Your task to perform on an android device: Show me productivity apps on the Play Store Image 0: 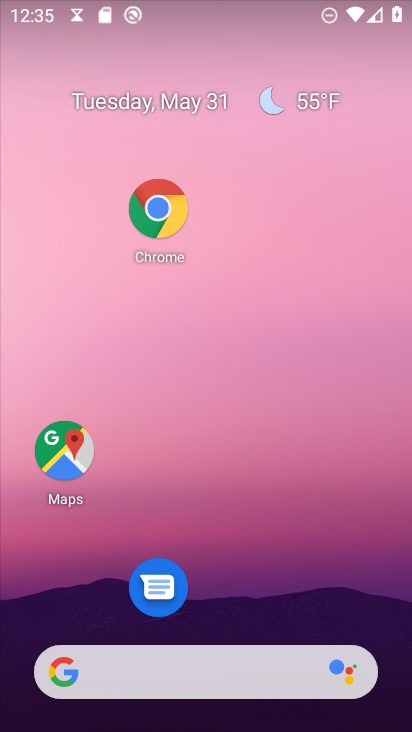
Step 0: drag from (226, 592) to (258, 215)
Your task to perform on an android device: Show me productivity apps on the Play Store Image 1: 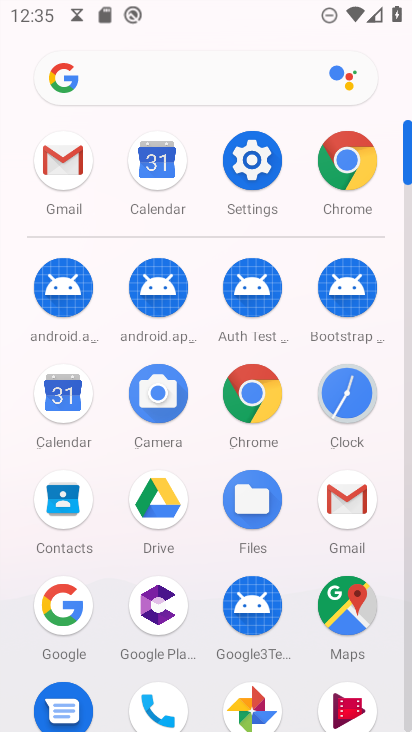
Step 1: drag from (98, 617) to (98, 346)
Your task to perform on an android device: Show me productivity apps on the Play Store Image 2: 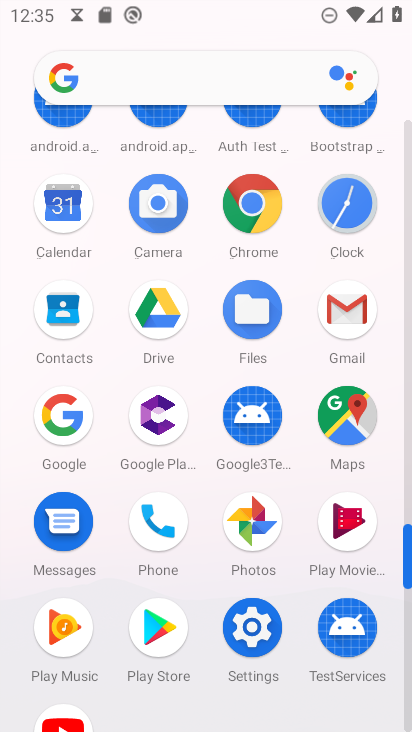
Step 2: click (155, 633)
Your task to perform on an android device: Show me productivity apps on the Play Store Image 3: 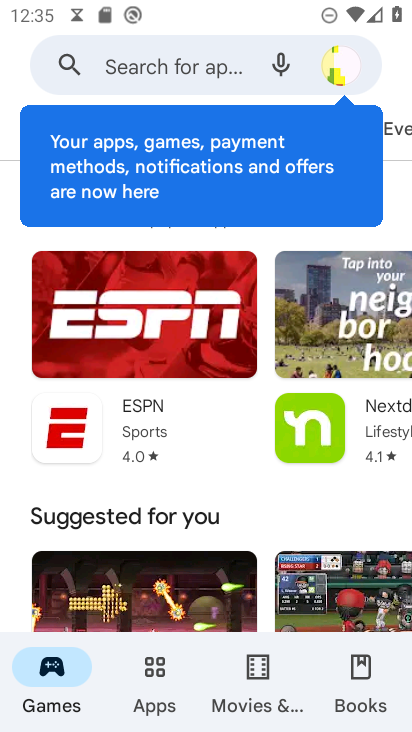
Step 3: click (158, 681)
Your task to perform on an android device: Show me productivity apps on the Play Store Image 4: 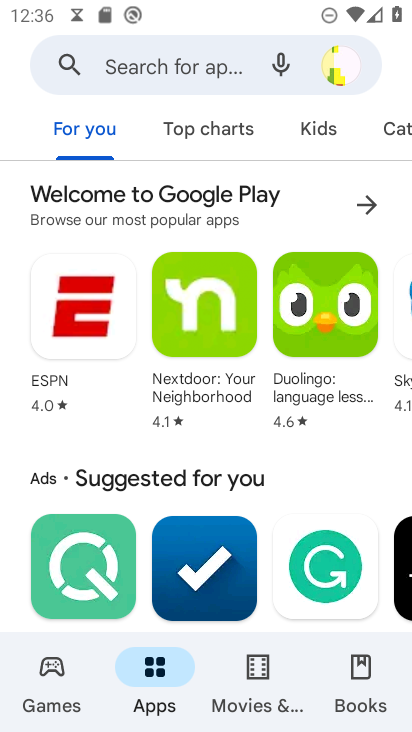
Step 4: click (392, 131)
Your task to perform on an android device: Show me productivity apps on the Play Store Image 5: 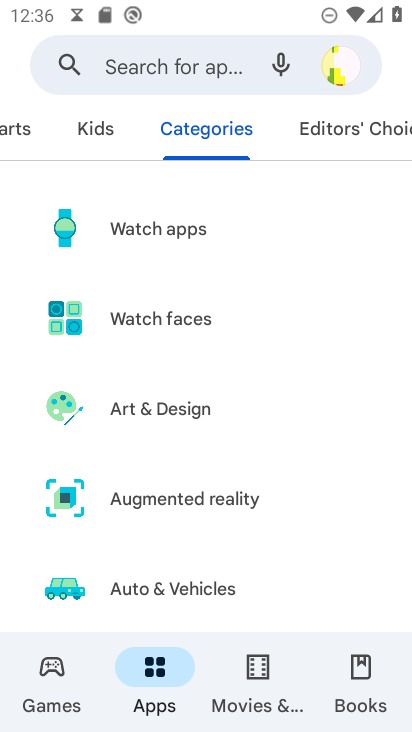
Step 5: drag from (185, 582) to (181, 159)
Your task to perform on an android device: Show me productivity apps on the Play Store Image 6: 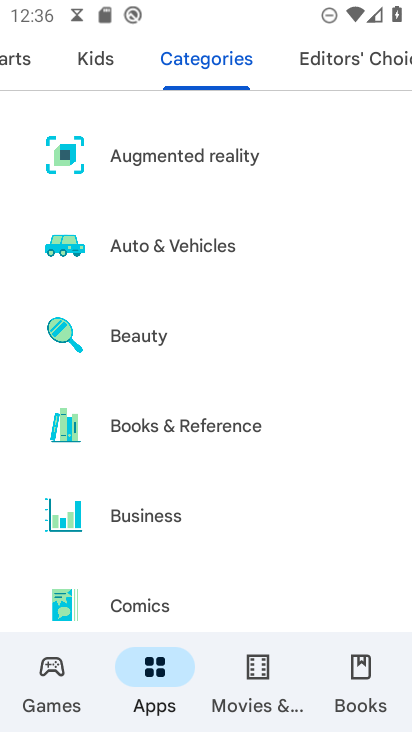
Step 6: drag from (236, 600) to (232, 212)
Your task to perform on an android device: Show me productivity apps on the Play Store Image 7: 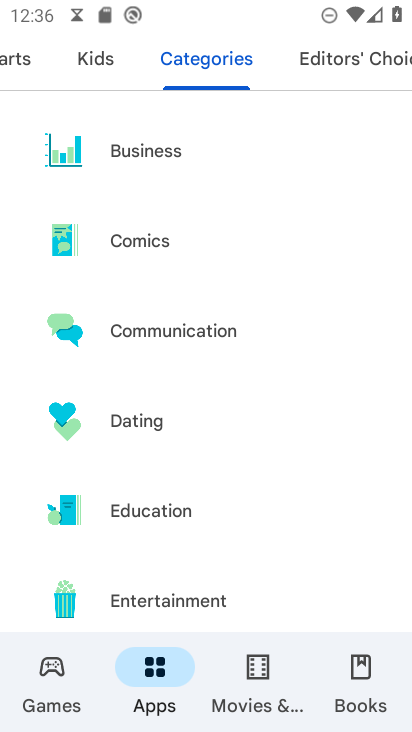
Step 7: drag from (245, 428) to (255, 139)
Your task to perform on an android device: Show me productivity apps on the Play Store Image 8: 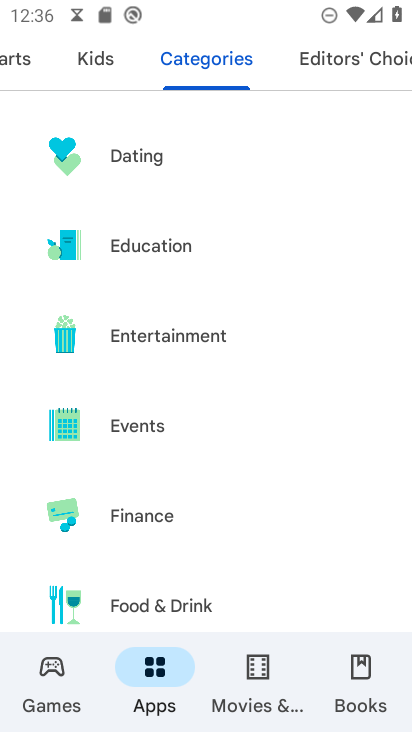
Step 8: drag from (287, 608) to (274, 192)
Your task to perform on an android device: Show me productivity apps on the Play Store Image 9: 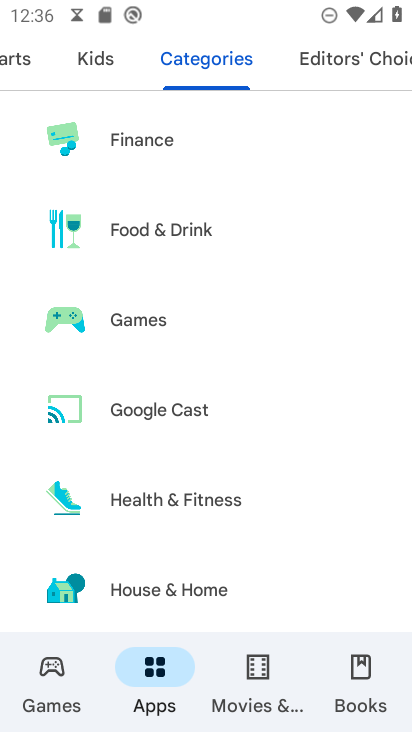
Step 9: drag from (275, 605) to (327, 108)
Your task to perform on an android device: Show me productivity apps on the Play Store Image 10: 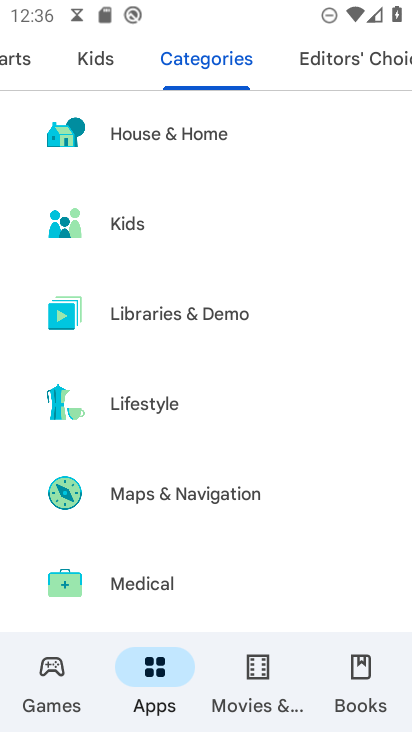
Step 10: drag from (278, 579) to (300, 167)
Your task to perform on an android device: Show me productivity apps on the Play Store Image 11: 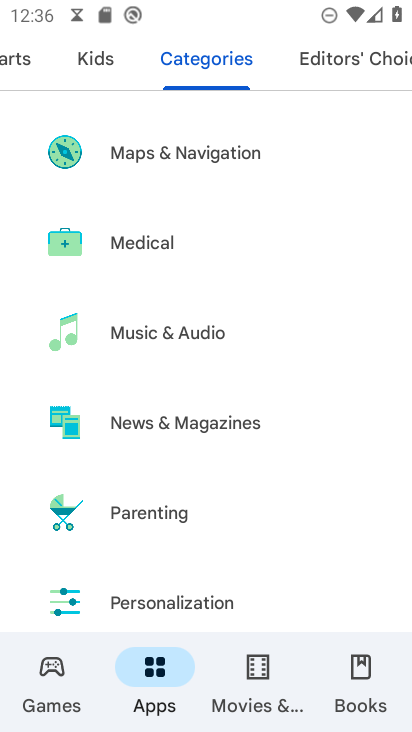
Step 11: drag from (257, 602) to (299, 349)
Your task to perform on an android device: Show me productivity apps on the Play Store Image 12: 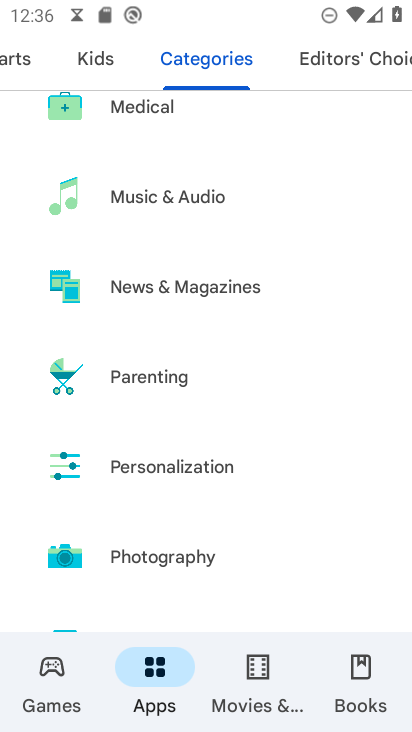
Step 12: drag from (263, 589) to (265, 353)
Your task to perform on an android device: Show me productivity apps on the Play Store Image 13: 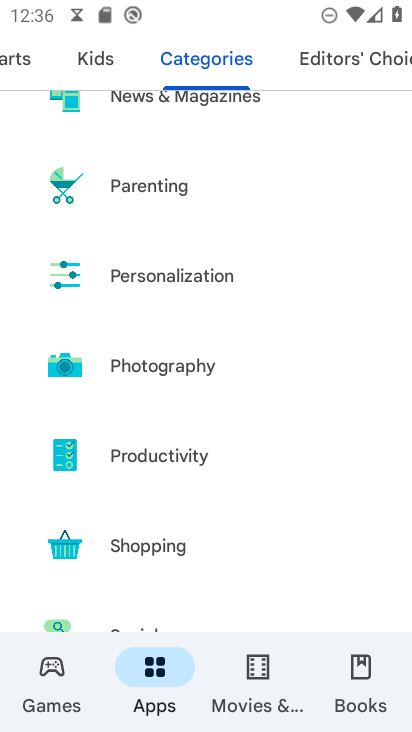
Step 13: click (165, 455)
Your task to perform on an android device: Show me productivity apps on the Play Store Image 14: 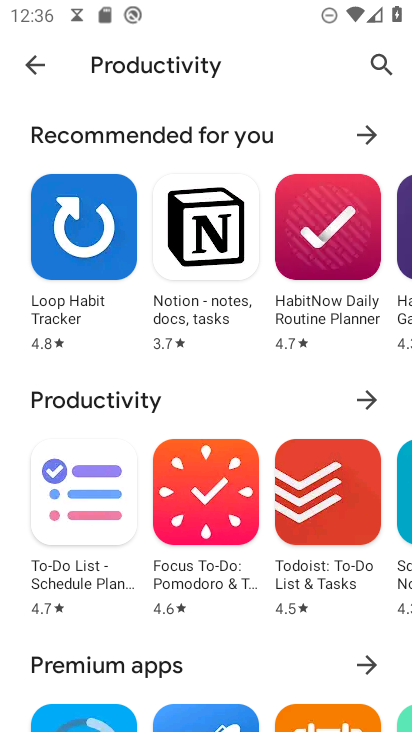
Step 14: task complete